Your task to perform on an android device: uninstall "LinkedIn" Image 0: 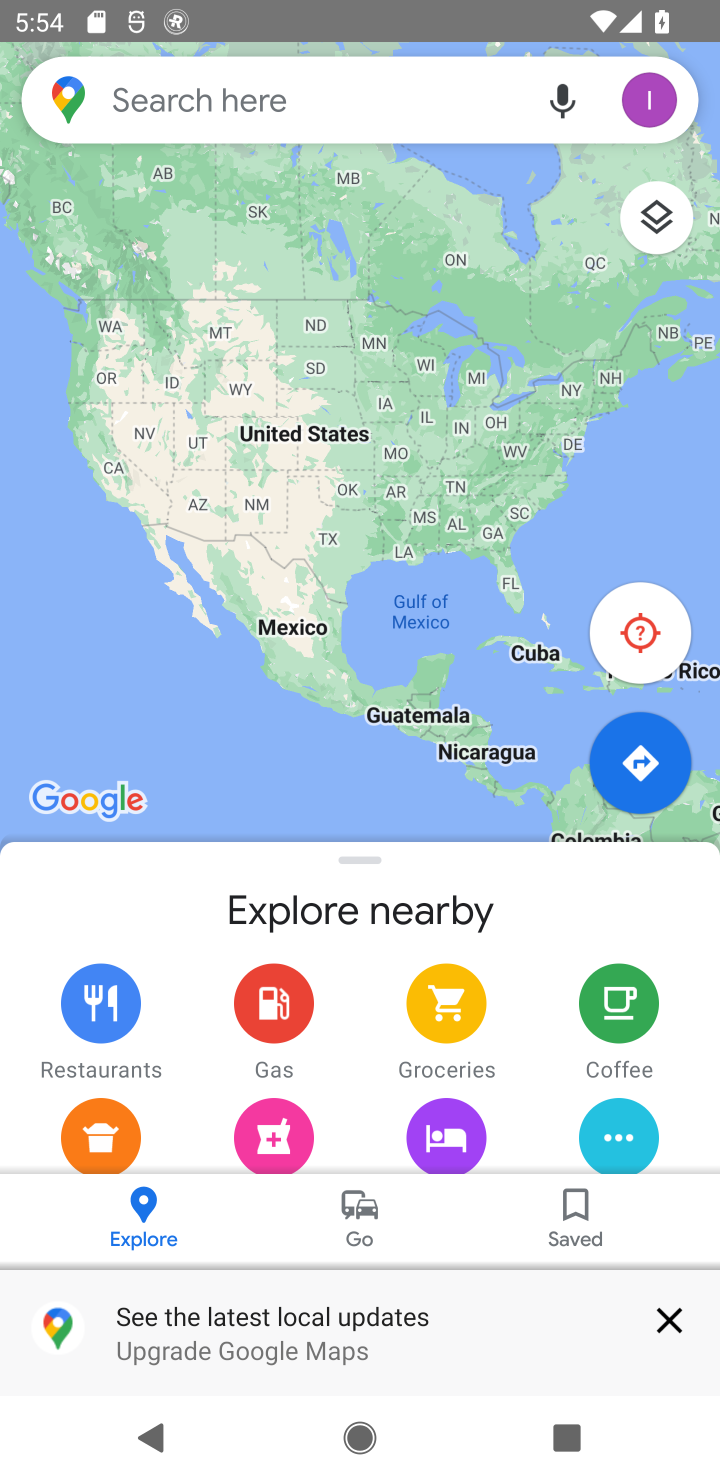
Step 0: press home button
Your task to perform on an android device: uninstall "LinkedIn" Image 1: 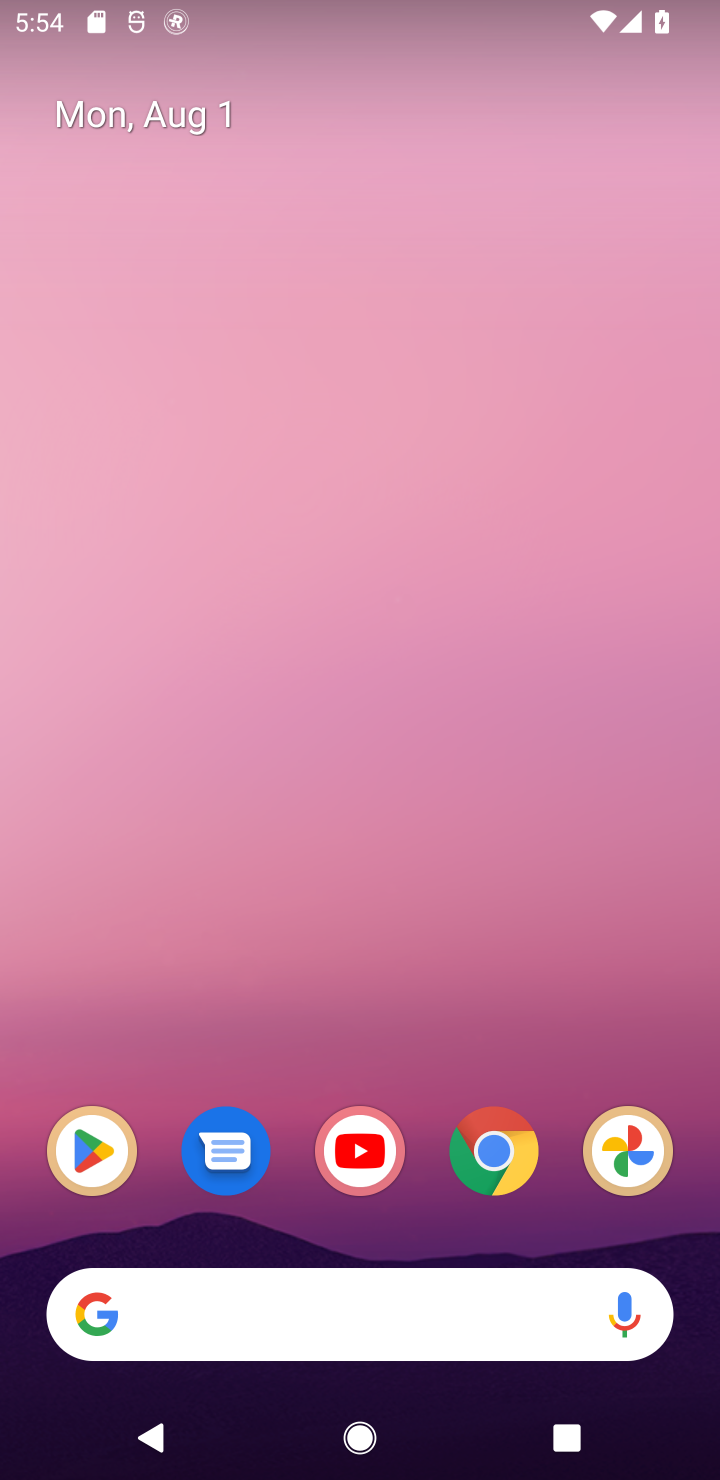
Step 1: click (93, 1162)
Your task to perform on an android device: uninstall "LinkedIn" Image 2: 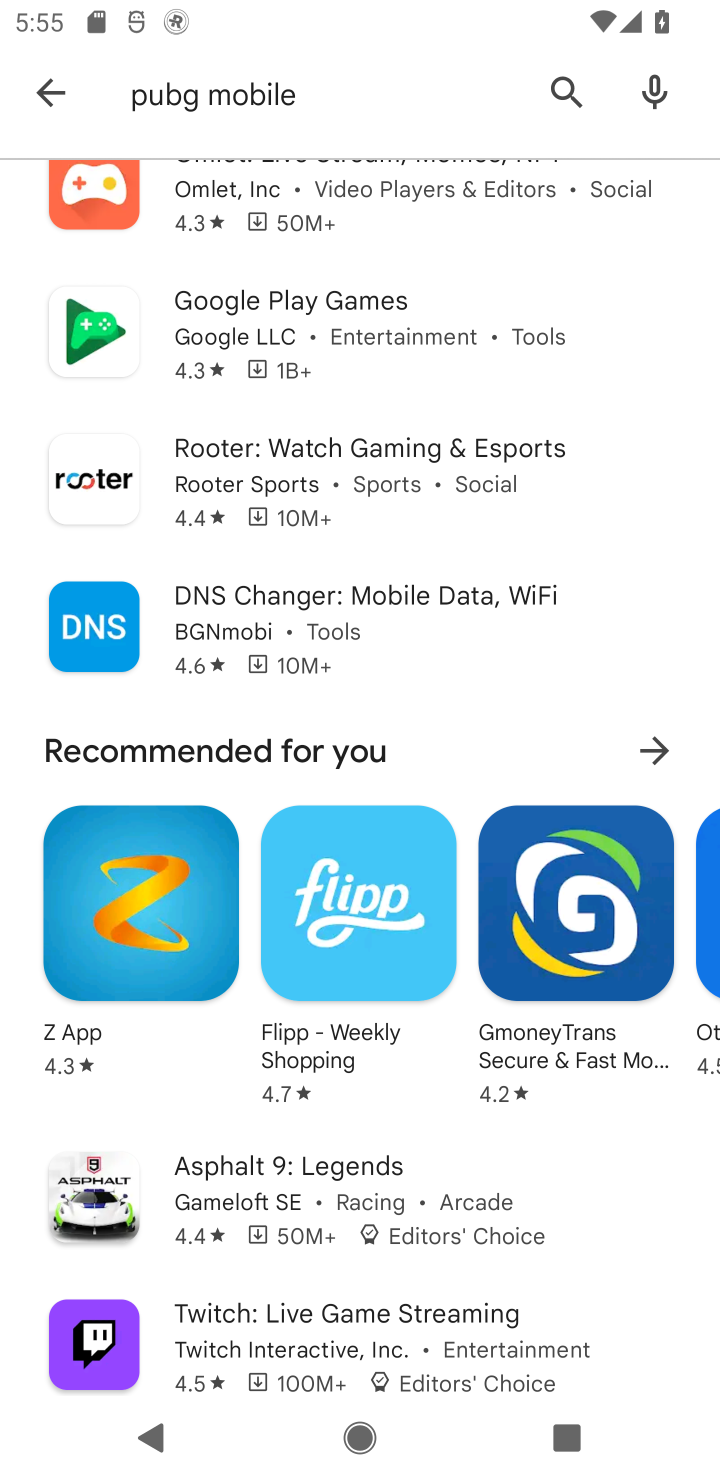
Step 2: click (572, 91)
Your task to perform on an android device: uninstall "LinkedIn" Image 3: 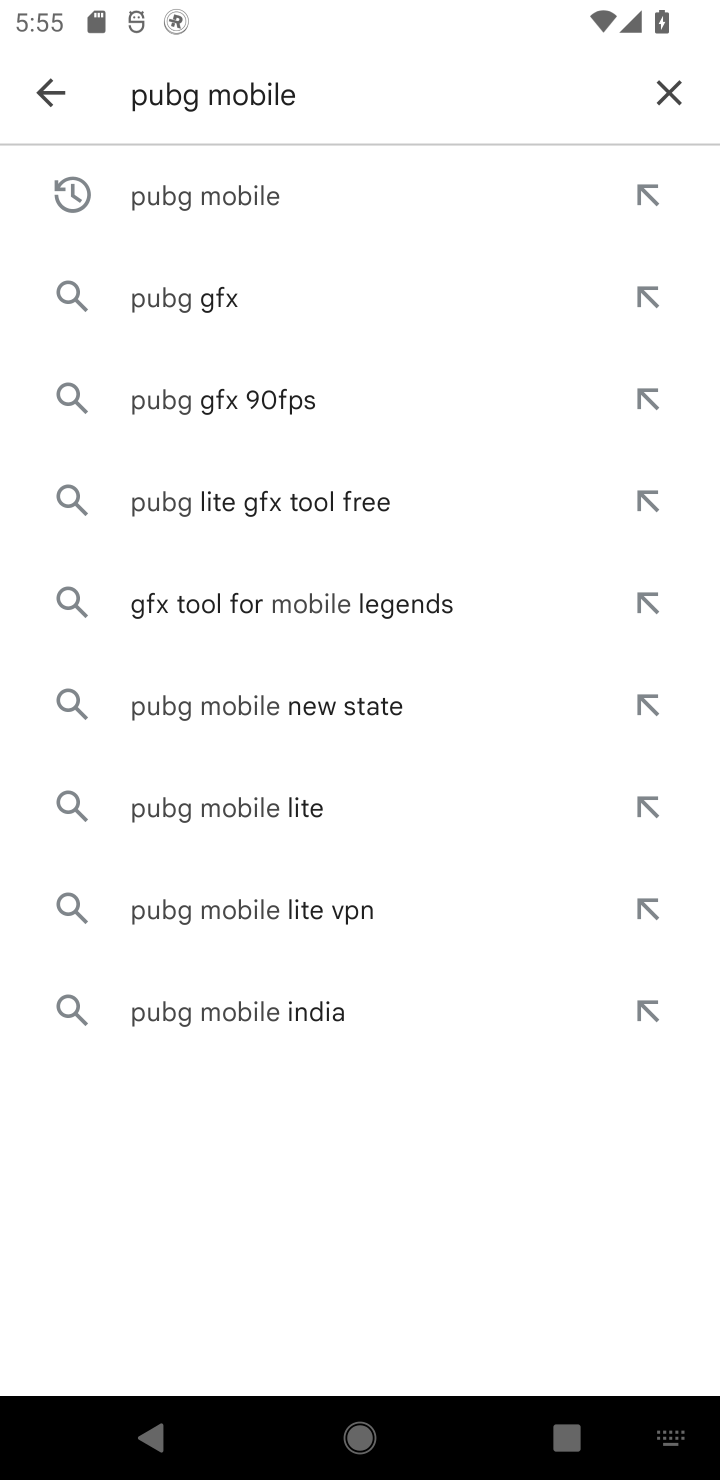
Step 3: click (679, 95)
Your task to perform on an android device: uninstall "LinkedIn" Image 4: 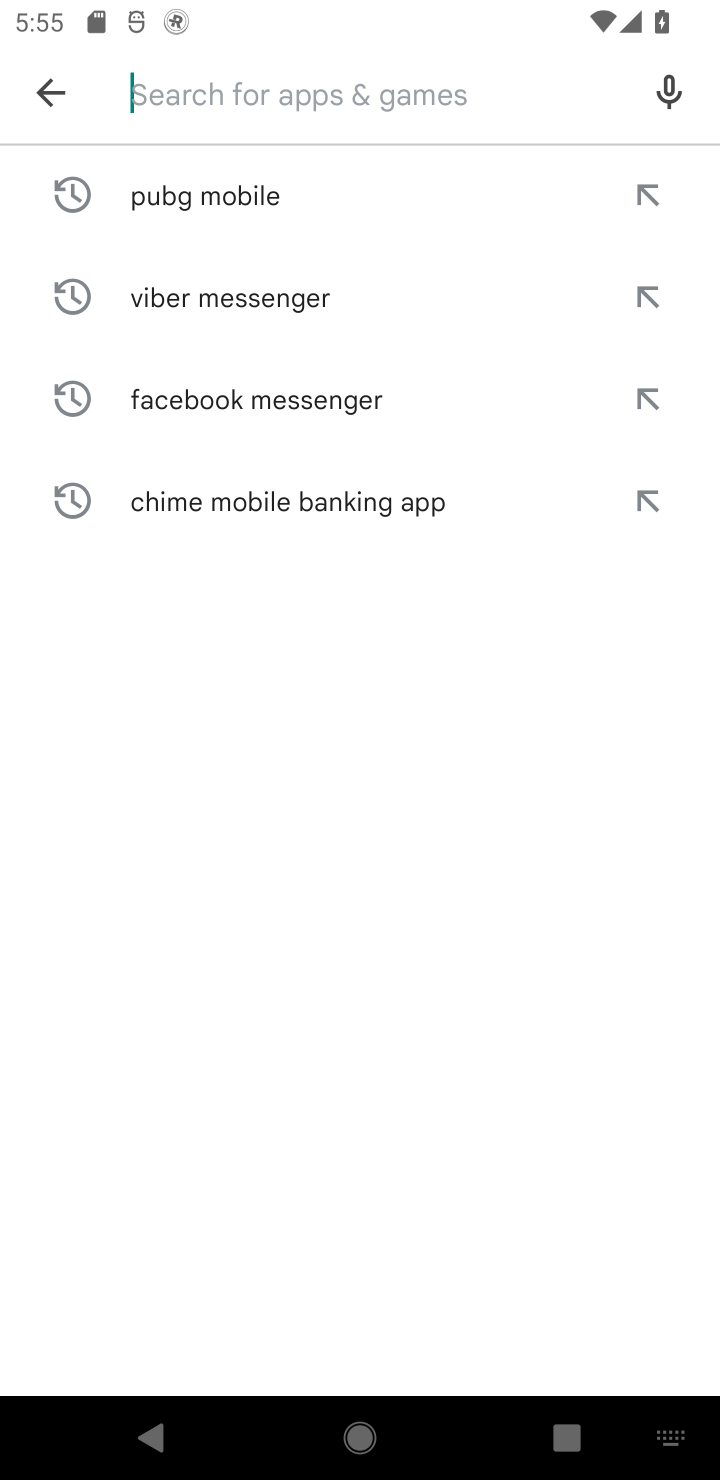
Step 4: type "LinkedIn"
Your task to perform on an android device: uninstall "LinkedIn" Image 5: 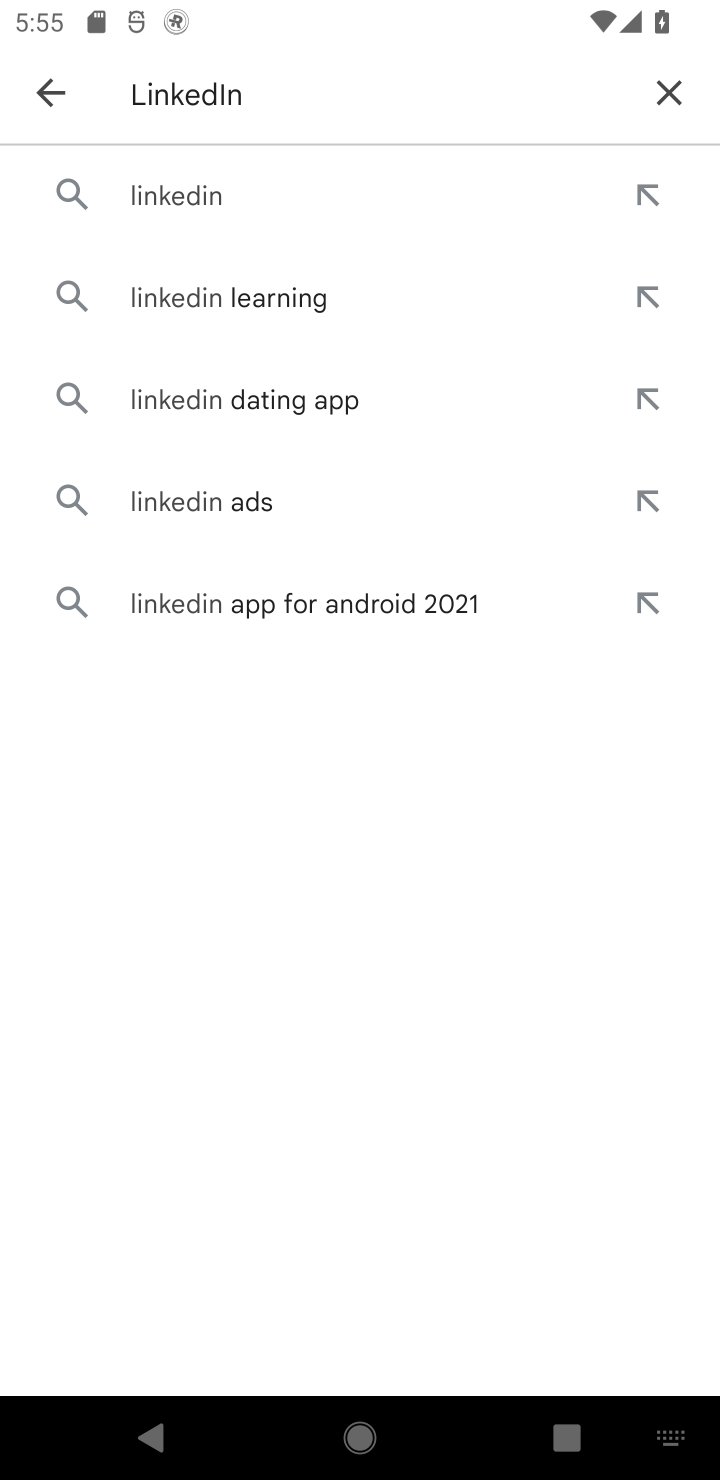
Step 5: click (185, 206)
Your task to perform on an android device: uninstall "LinkedIn" Image 6: 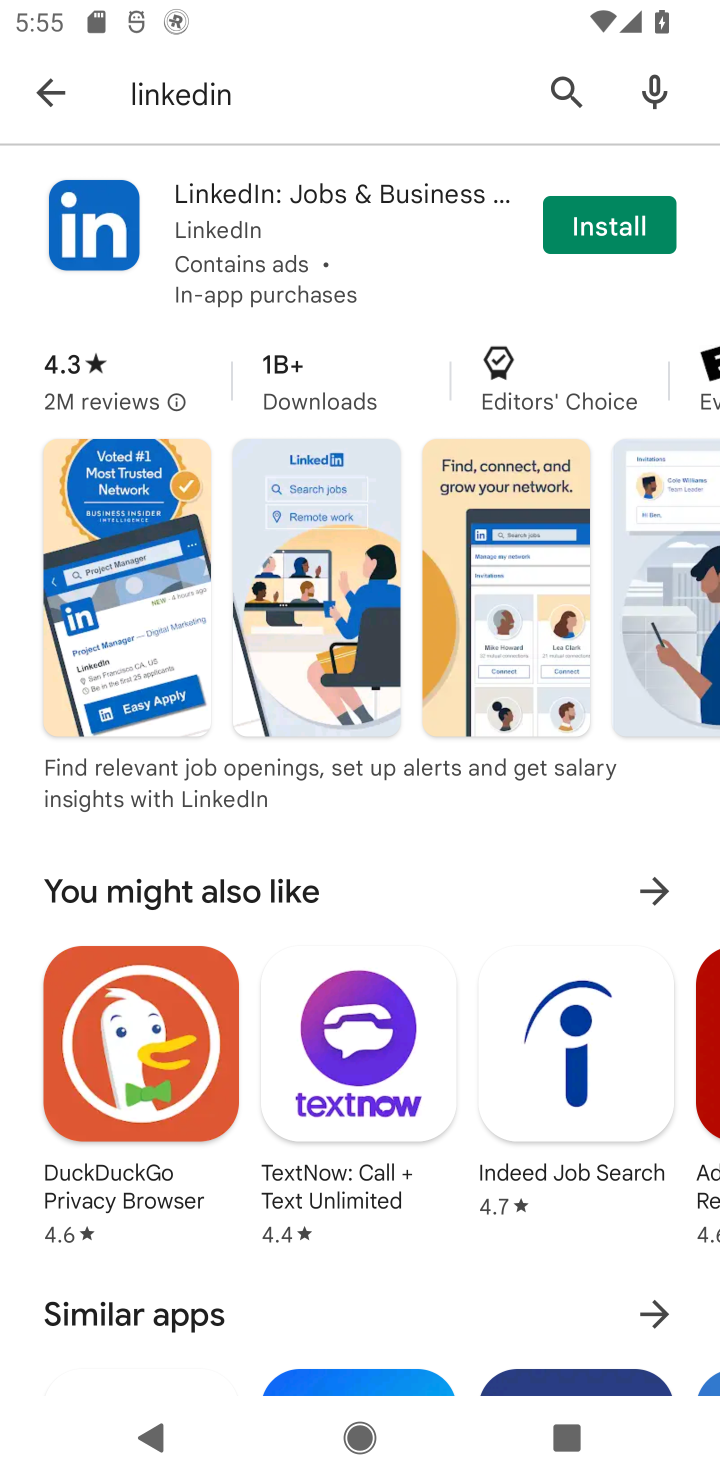
Step 6: task complete